Your task to perform on an android device: Open maps Image 0: 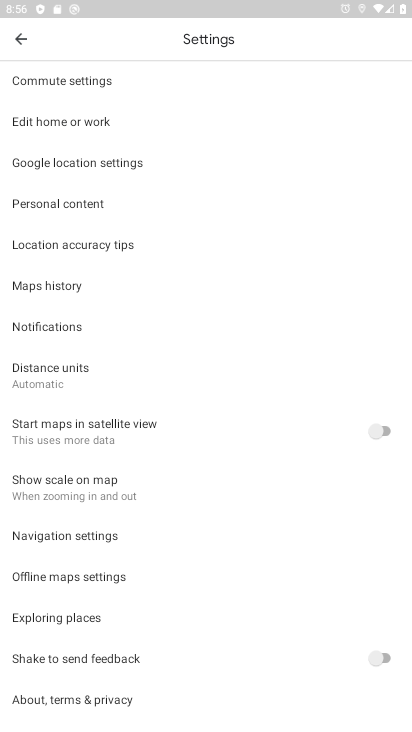
Step 0: press home button
Your task to perform on an android device: Open maps Image 1: 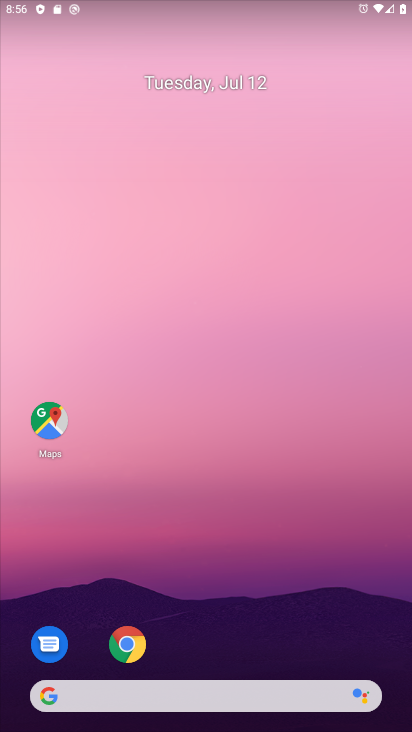
Step 1: click (52, 430)
Your task to perform on an android device: Open maps Image 2: 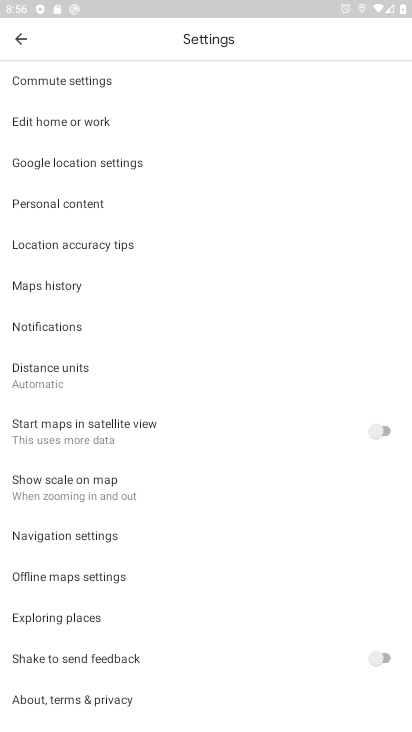
Step 2: press home button
Your task to perform on an android device: Open maps Image 3: 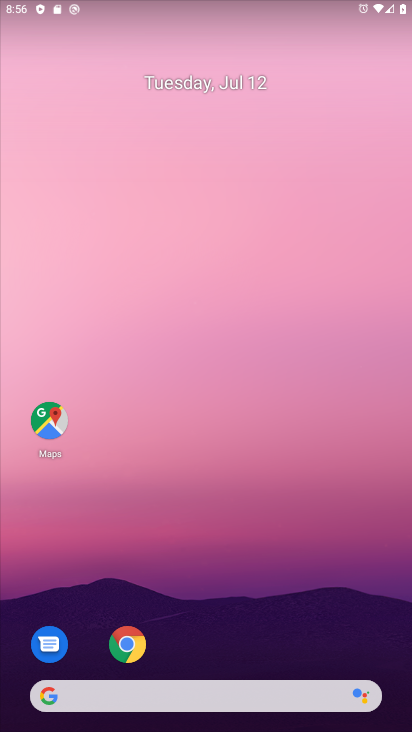
Step 3: click (42, 428)
Your task to perform on an android device: Open maps Image 4: 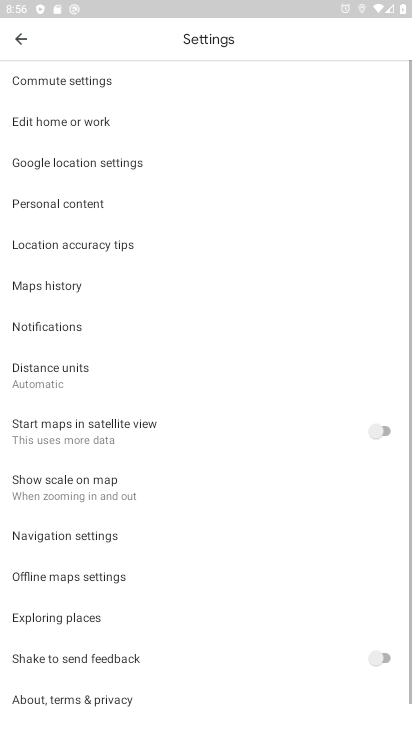
Step 4: click (21, 39)
Your task to perform on an android device: Open maps Image 5: 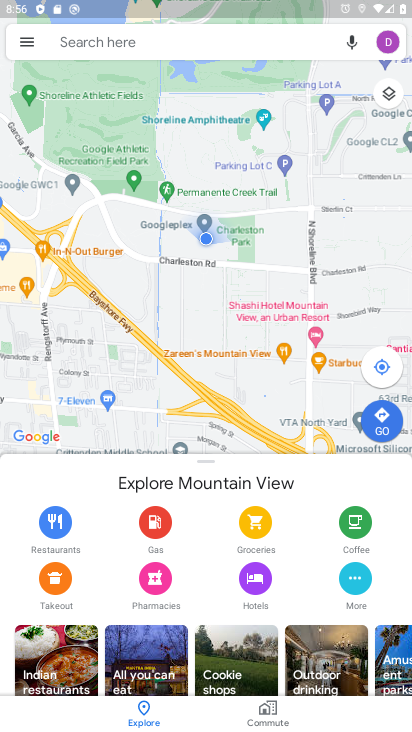
Step 5: task complete